Your task to perform on an android device: Open the phone app and click the voicemail tab. Image 0: 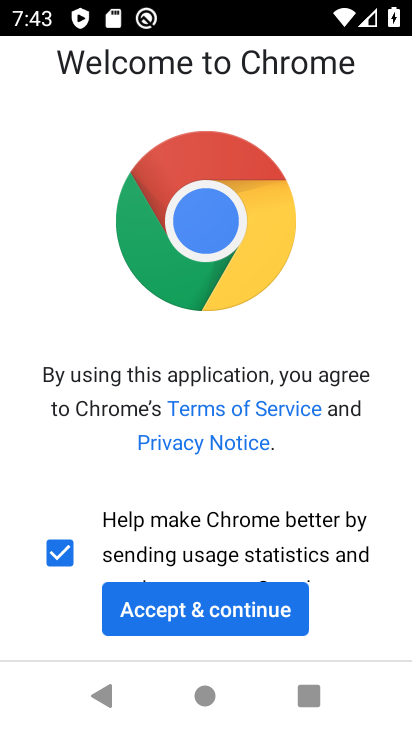
Step 0: press home button
Your task to perform on an android device: Open the phone app and click the voicemail tab. Image 1: 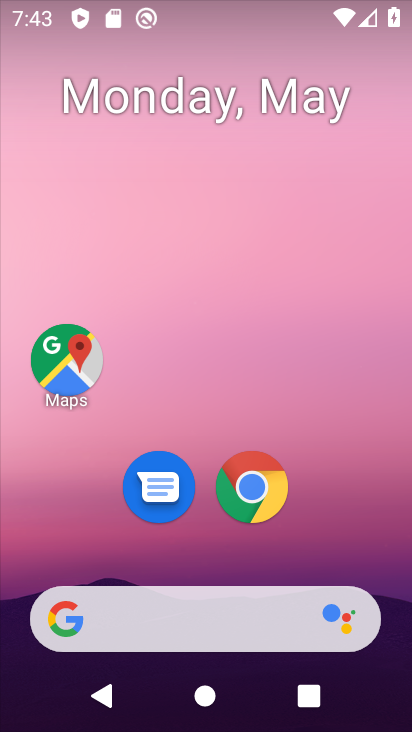
Step 1: drag from (339, 509) to (311, 119)
Your task to perform on an android device: Open the phone app and click the voicemail tab. Image 2: 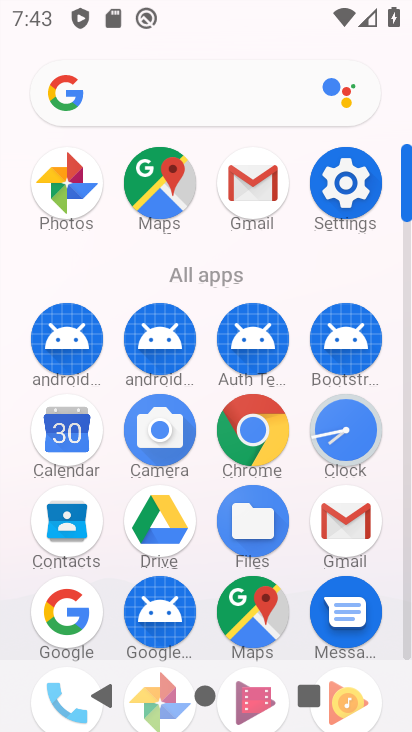
Step 2: drag from (388, 625) to (361, 268)
Your task to perform on an android device: Open the phone app and click the voicemail tab. Image 3: 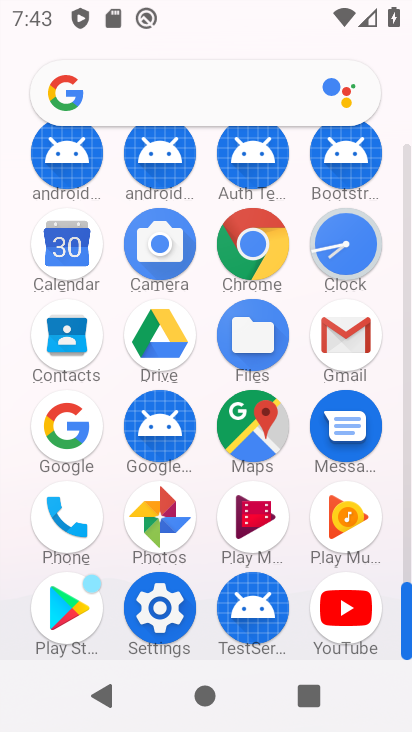
Step 3: click (66, 520)
Your task to perform on an android device: Open the phone app and click the voicemail tab. Image 4: 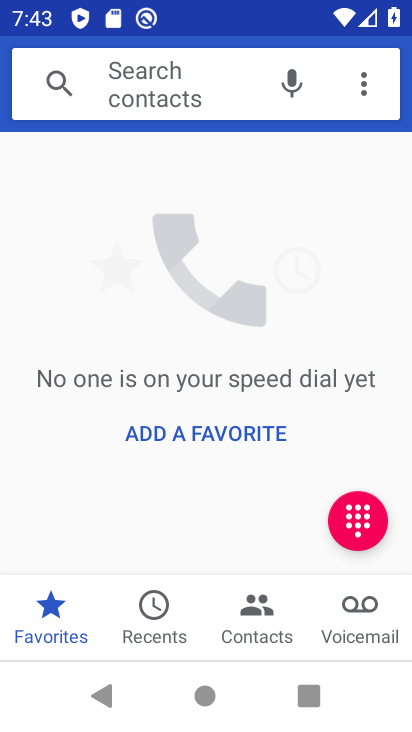
Step 4: click (366, 619)
Your task to perform on an android device: Open the phone app and click the voicemail tab. Image 5: 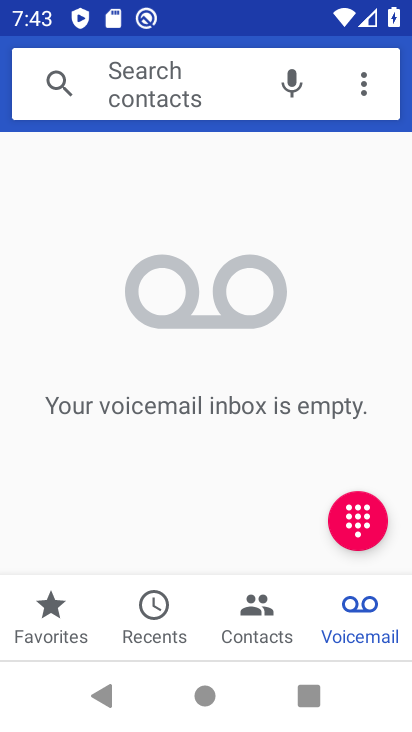
Step 5: task complete